Your task to perform on an android device: When is my next meeting? Image 0: 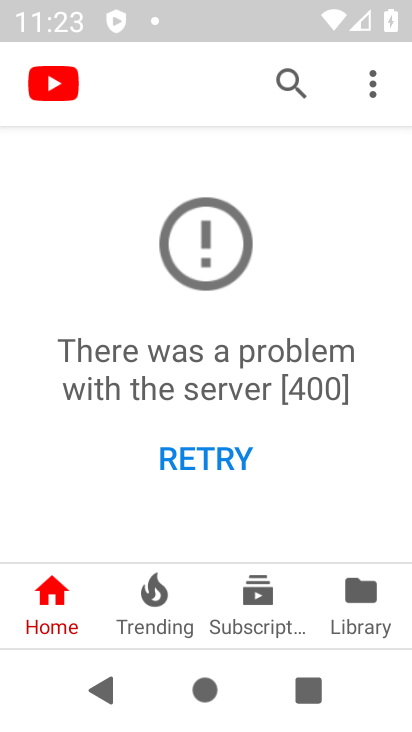
Step 0: press home button
Your task to perform on an android device: When is my next meeting? Image 1: 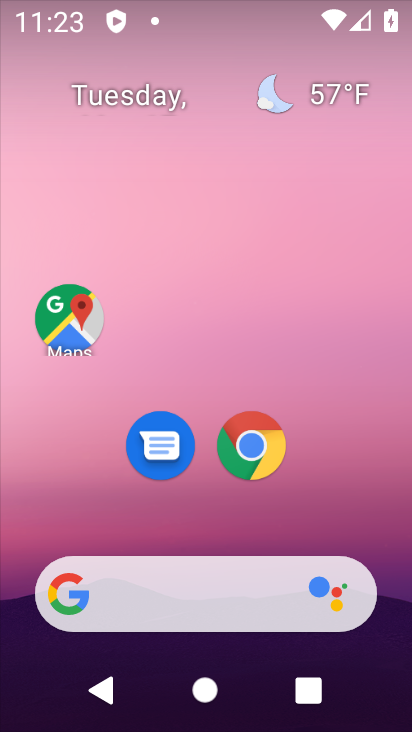
Step 1: drag from (367, 524) to (367, 169)
Your task to perform on an android device: When is my next meeting? Image 2: 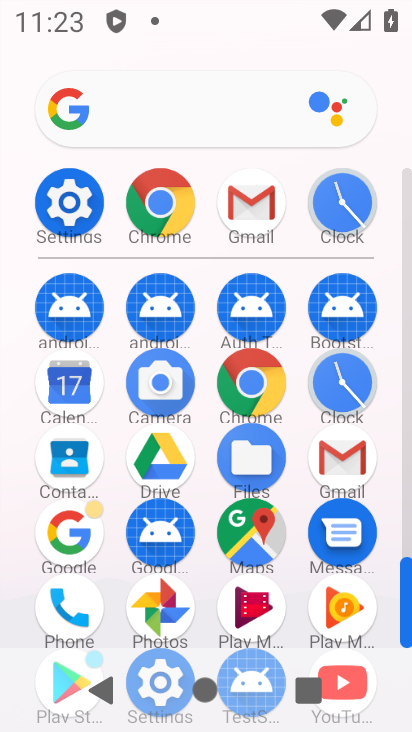
Step 2: click (69, 384)
Your task to perform on an android device: When is my next meeting? Image 3: 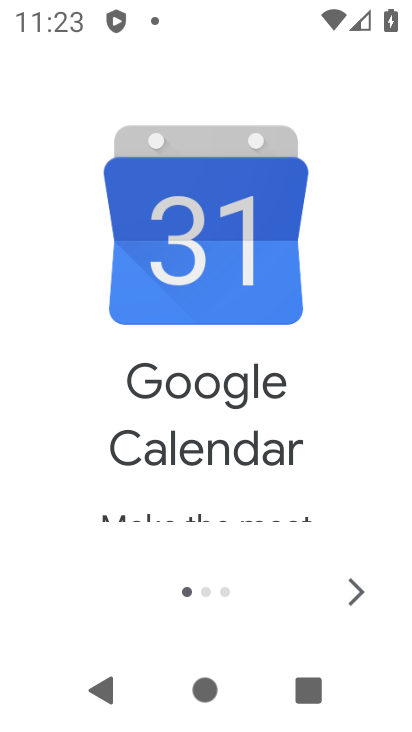
Step 3: click (355, 598)
Your task to perform on an android device: When is my next meeting? Image 4: 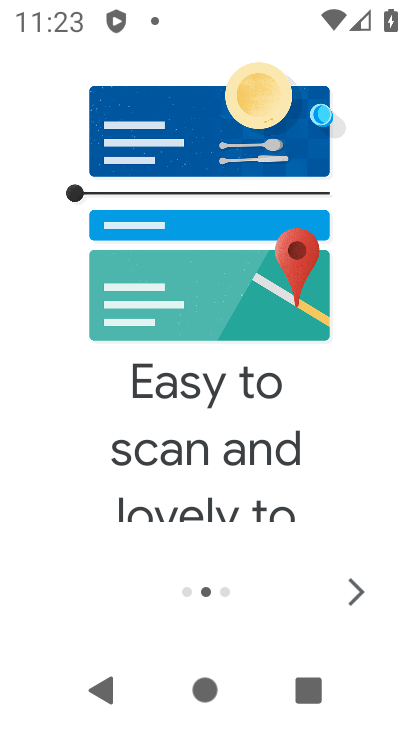
Step 4: click (358, 597)
Your task to perform on an android device: When is my next meeting? Image 5: 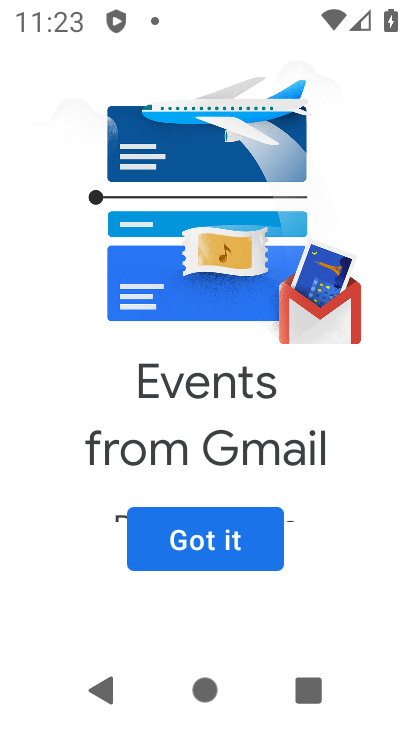
Step 5: click (221, 560)
Your task to perform on an android device: When is my next meeting? Image 6: 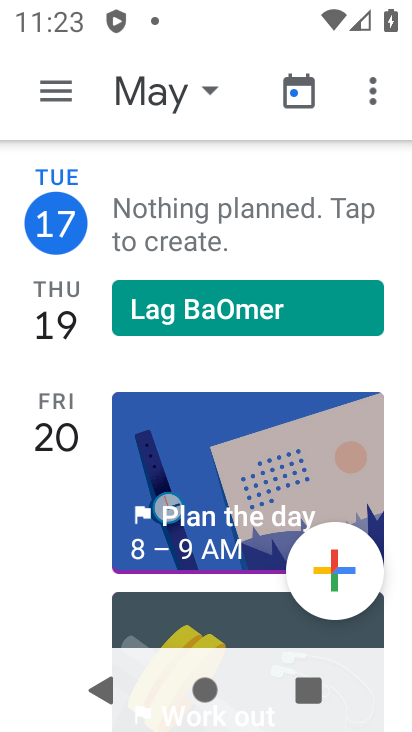
Step 6: click (255, 318)
Your task to perform on an android device: When is my next meeting? Image 7: 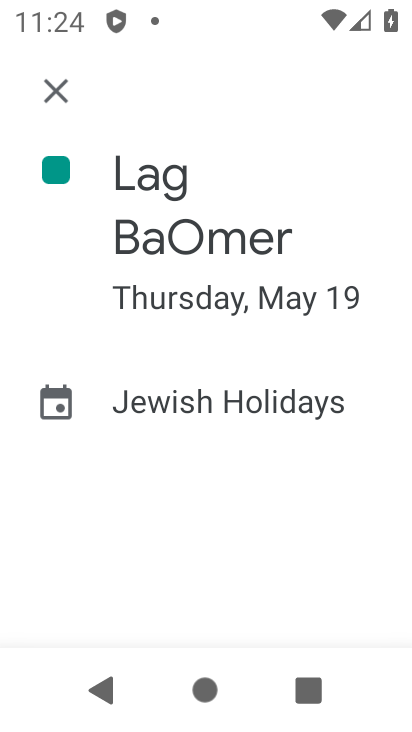
Step 7: task complete